Your task to perform on an android device: Go to wifi settings Image 0: 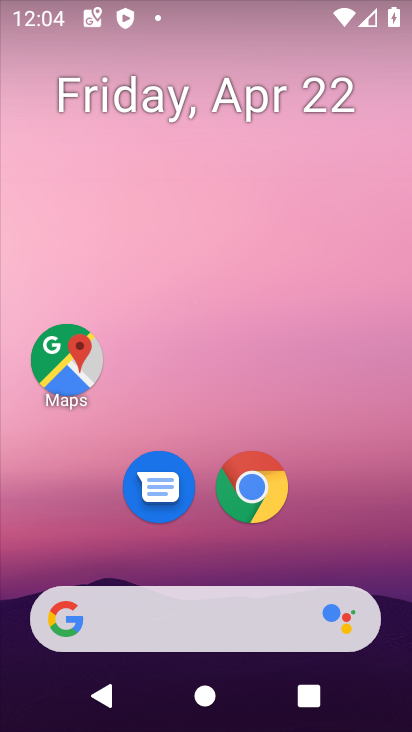
Step 0: drag from (329, 506) to (317, 120)
Your task to perform on an android device: Go to wifi settings Image 1: 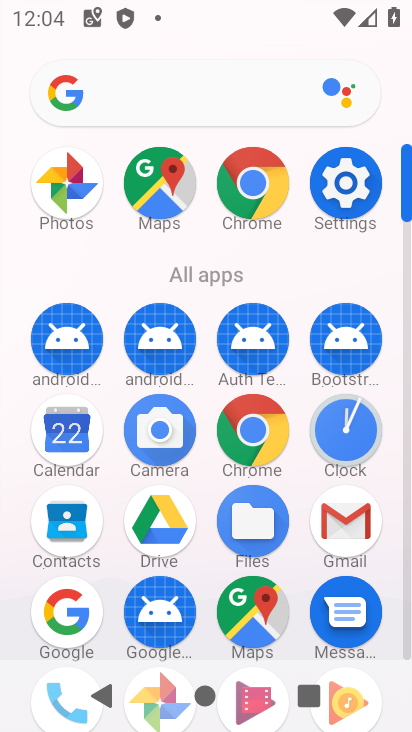
Step 1: click (338, 179)
Your task to perform on an android device: Go to wifi settings Image 2: 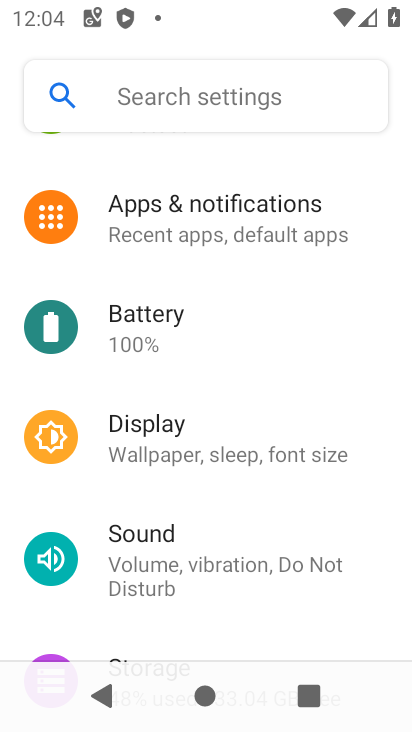
Step 2: drag from (292, 289) to (307, 528)
Your task to perform on an android device: Go to wifi settings Image 3: 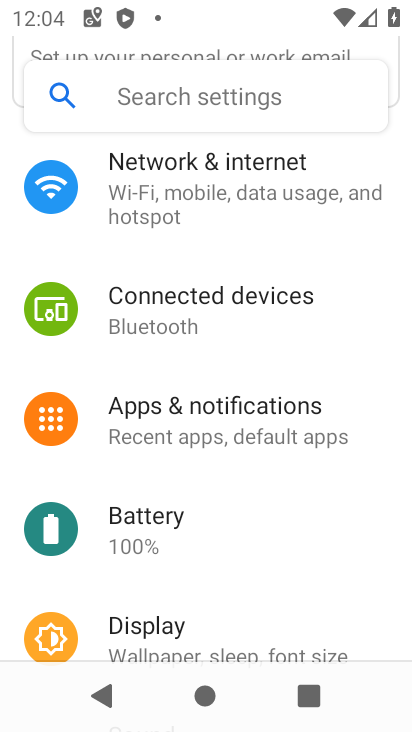
Step 3: click (240, 179)
Your task to perform on an android device: Go to wifi settings Image 4: 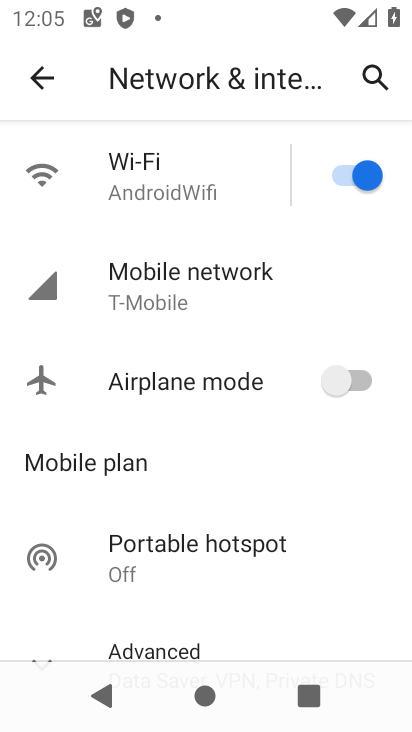
Step 4: click (240, 171)
Your task to perform on an android device: Go to wifi settings Image 5: 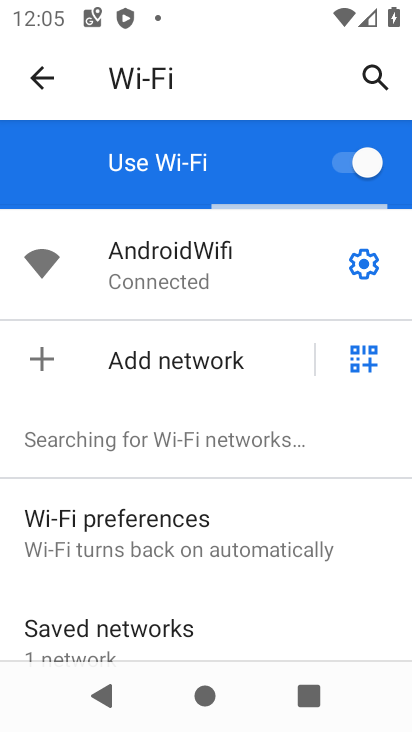
Step 5: task complete